Your task to perform on an android device: allow cookies in the chrome app Image 0: 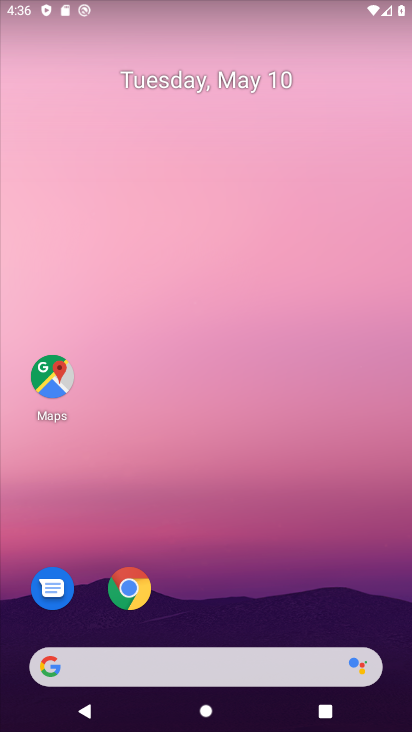
Step 0: click (128, 583)
Your task to perform on an android device: allow cookies in the chrome app Image 1: 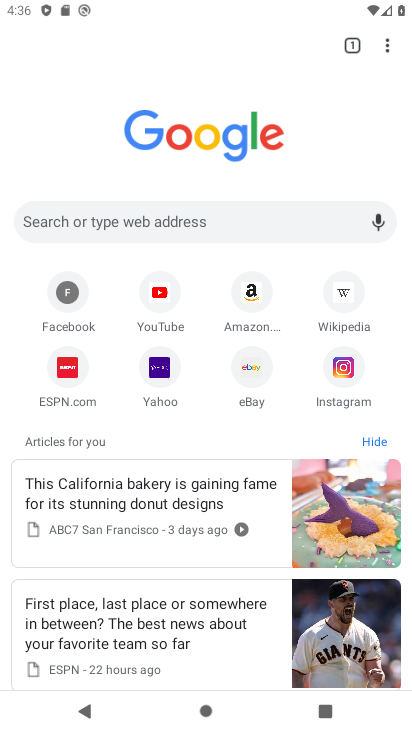
Step 1: click (386, 39)
Your task to perform on an android device: allow cookies in the chrome app Image 2: 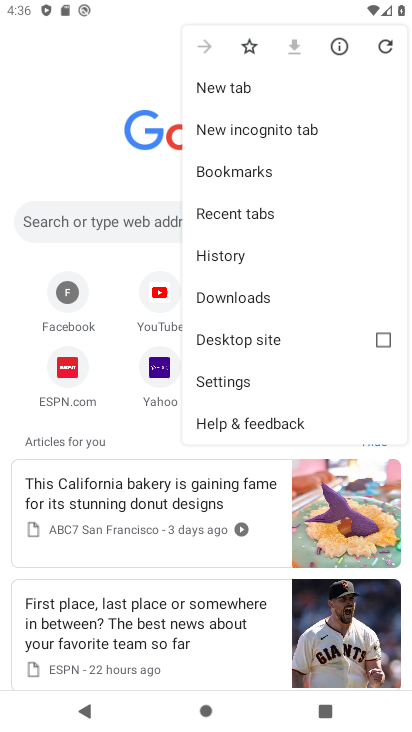
Step 2: click (247, 374)
Your task to perform on an android device: allow cookies in the chrome app Image 3: 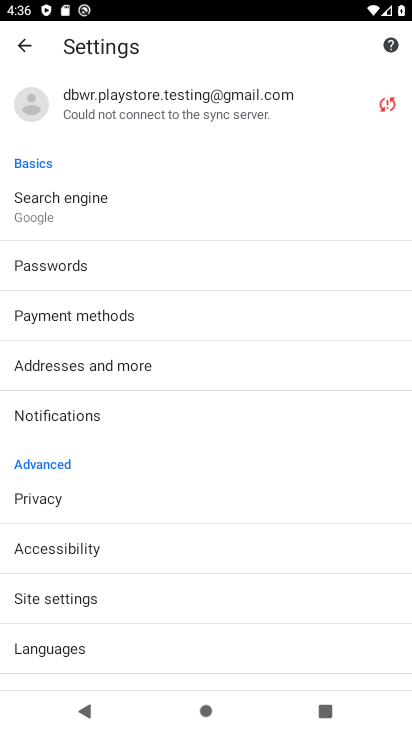
Step 3: click (113, 589)
Your task to perform on an android device: allow cookies in the chrome app Image 4: 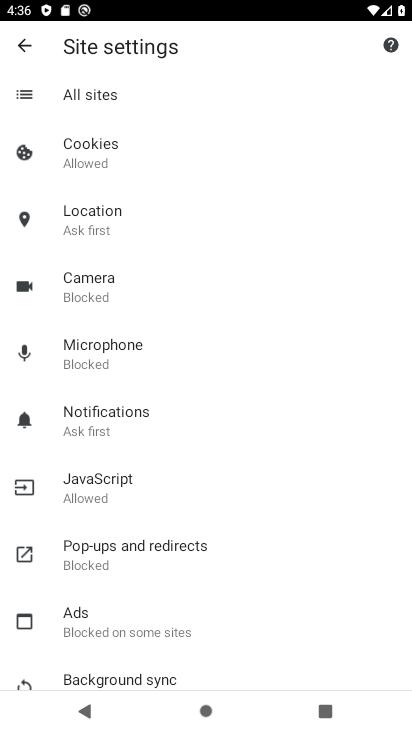
Step 4: task complete